Your task to perform on an android device: check out phone information Image 0: 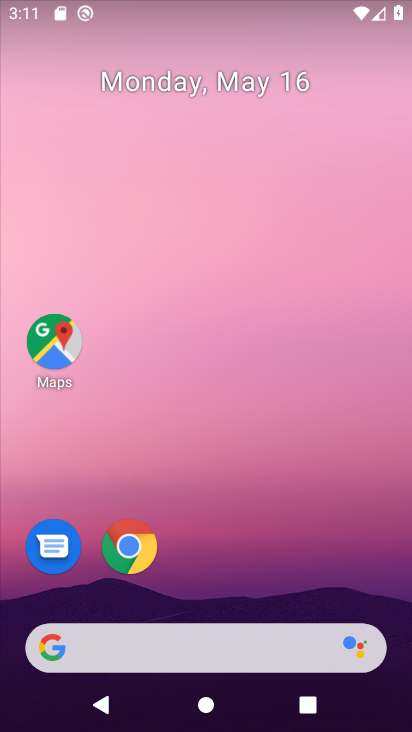
Step 0: drag from (363, 553) to (379, 150)
Your task to perform on an android device: check out phone information Image 1: 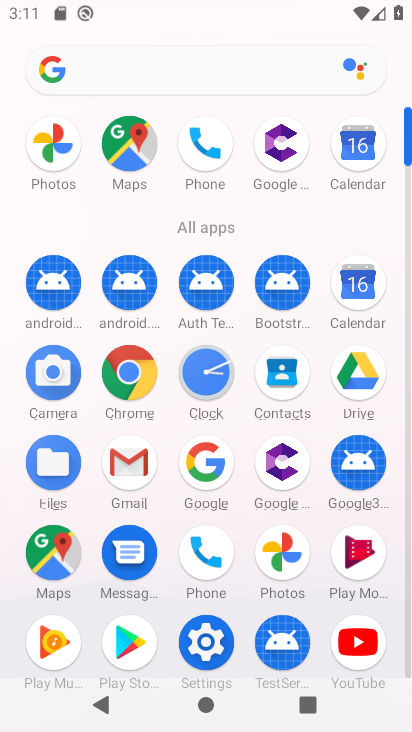
Step 1: click (209, 559)
Your task to perform on an android device: check out phone information Image 2: 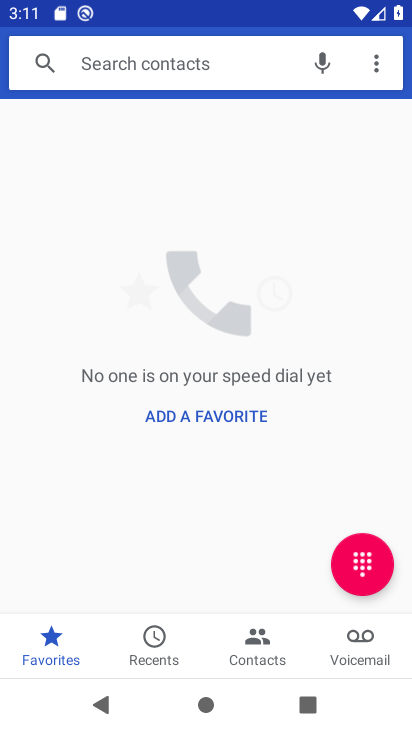
Step 2: click (154, 634)
Your task to perform on an android device: check out phone information Image 3: 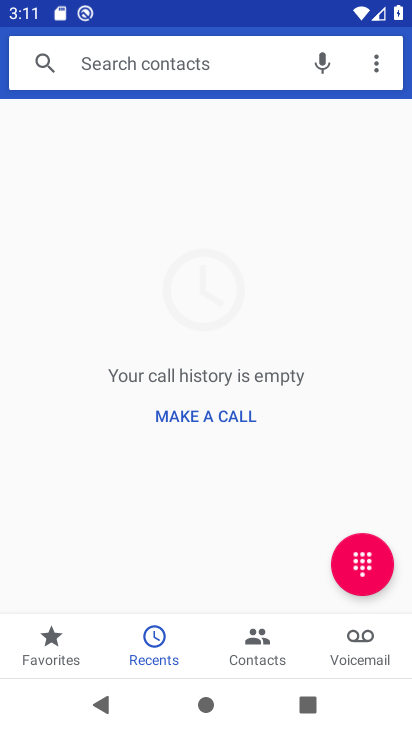
Step 3: task complete